Your task to perform on an android device: Open Youtube and go to the subscriptions tab Image 0: 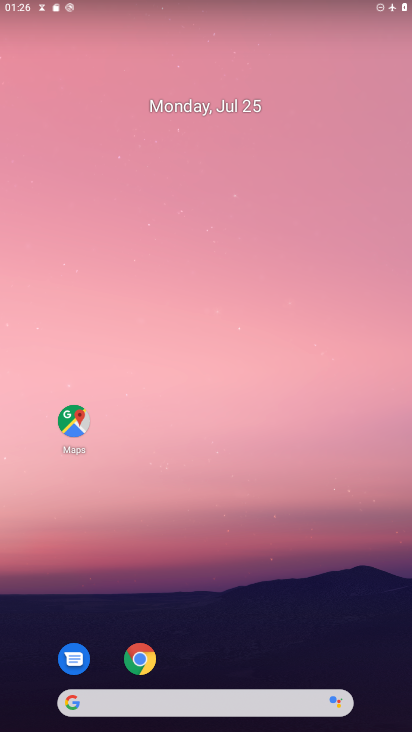
Step 0: drag from (247, 659) to (265, 259)
Your task to perform on an android device: Open Youtube and go to the subscriptions tab Image 1: 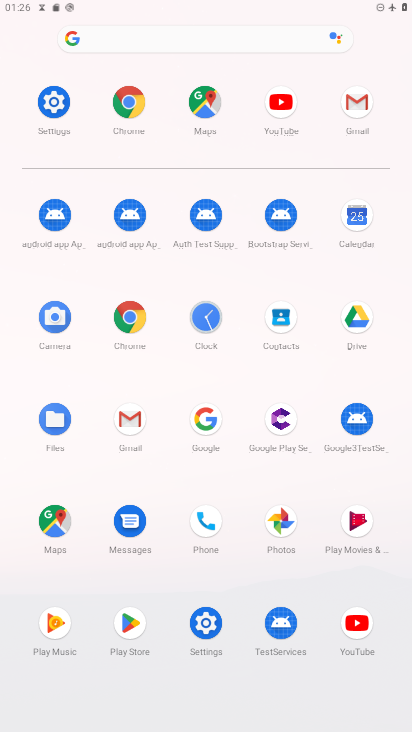
Step 1: click (275, 83)
Your task to perform on an android device: Open Youtube and go to the subscriptions tab Image 2: 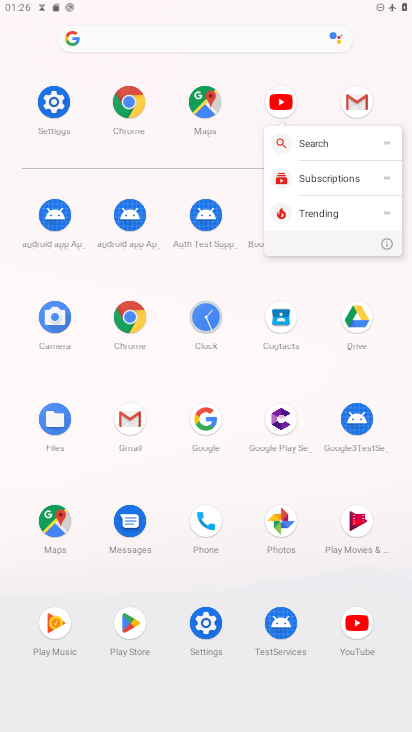
Step 2: click (287, 87)
Your task to perform on an android device: Open Youtube and go to the subscriptions tab Image 3: 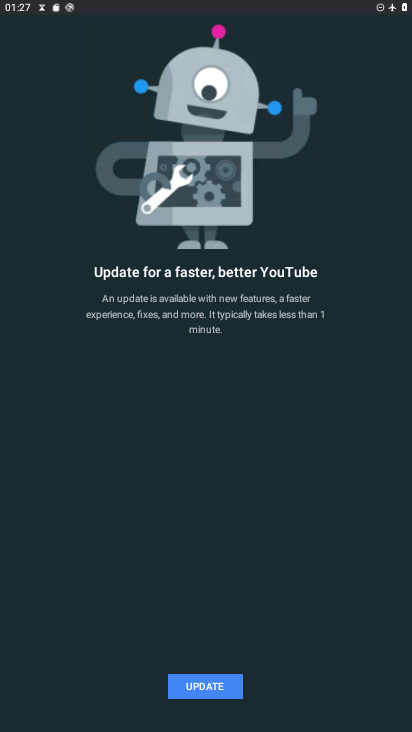
Step 3: task complete